Your task to perform on an android device: show emergency info Image 0: 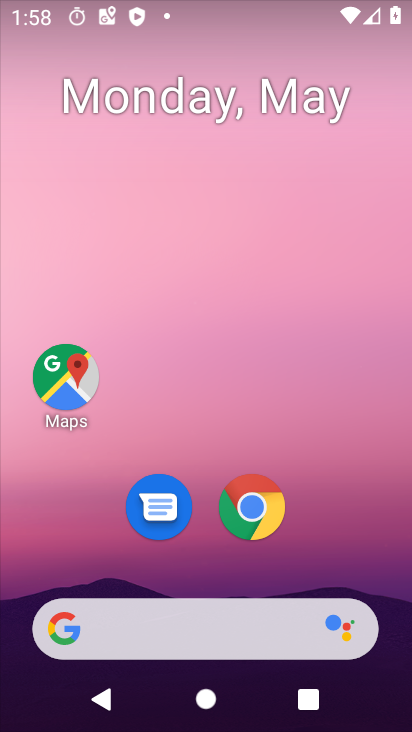
Step 0: drag from (330, 522) to (317, 169)
Your task to perform on an android device: show emergency info Image 1: 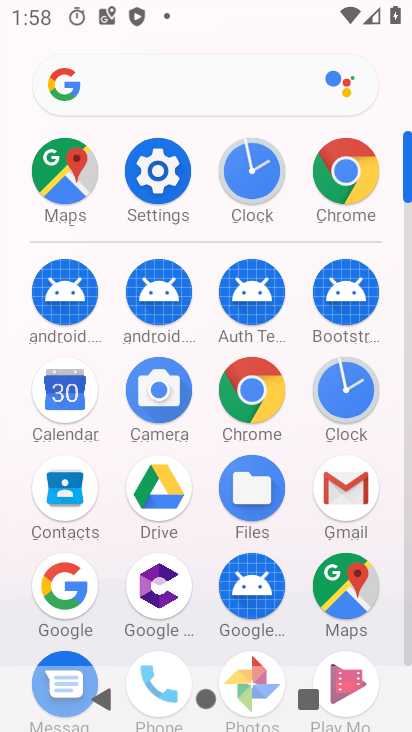
Step 1: click (171, 169)
Your task to perform on an android device: show emergency info Image 2: 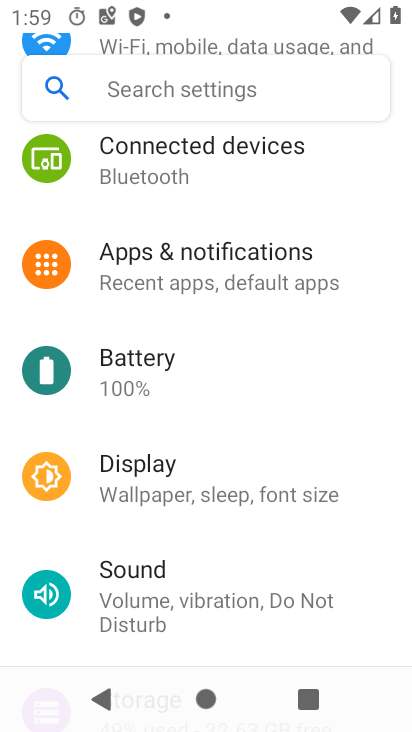
Step 2: drag from (278, 593) to (321, 106)
Your task to perform on an android device: show emergency info Image 3: 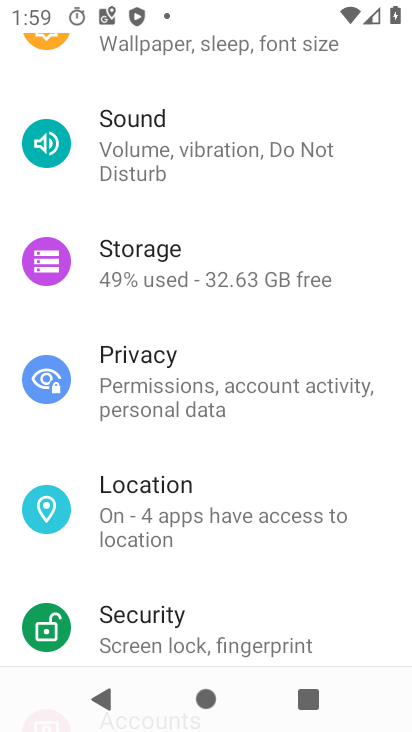
Step 3: drag from (258, 556) to (307, 112)
Your task to perform on an android device: show emergency info Image 4: 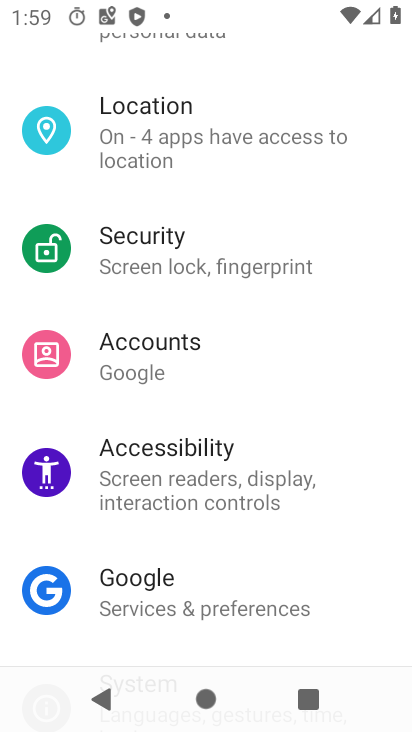
Step 4: click (249, 605)
Your task to perform on an android device: show emergency info Image 5: 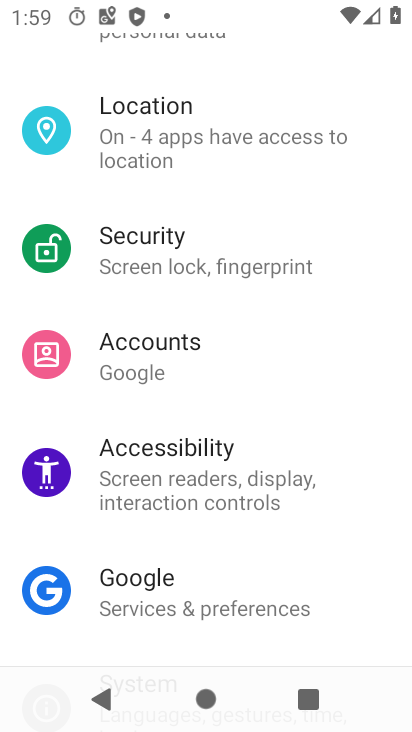
Step 5: drag from (299, 570) to (388, 200)
Your task to perform on an android device: show emergency info Image 6: 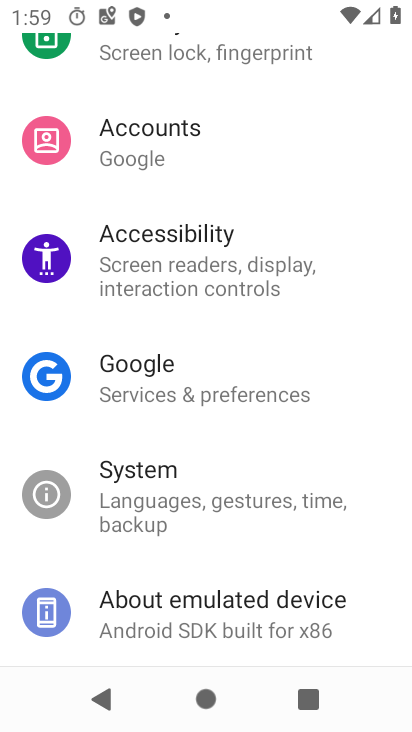
Step 6: click (231, 599)
Your task to perform on an android device: show emergency info Image 7: 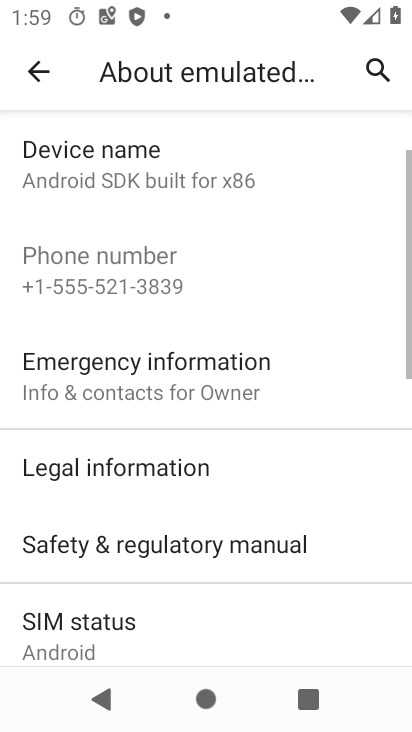
Step 7: click (260, 381)
Your task to perform on an android device: show emergency info Image 8: 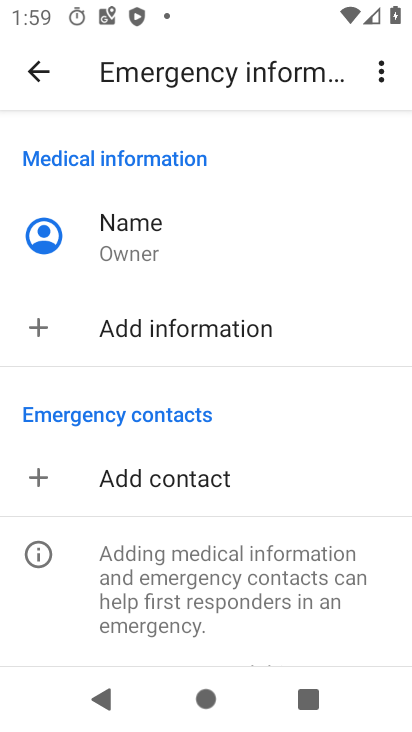
Step 8: task complete